Your task to perform on an android device: open a bookmark in the chrome app Image 0: 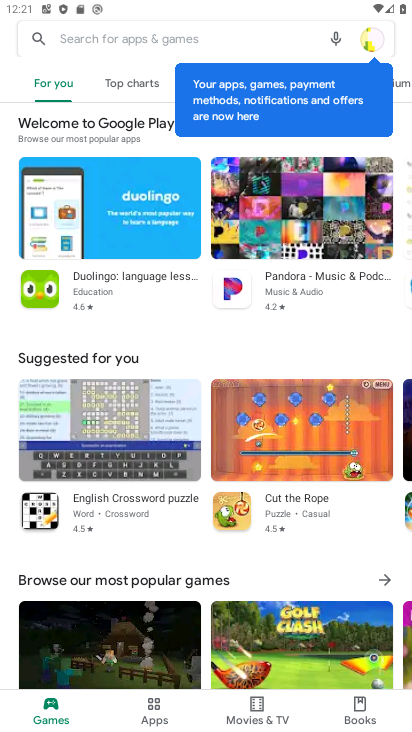
Step 0: press back button
Your task to perform on an android device: open a bookmark in the chrome app Image 1: 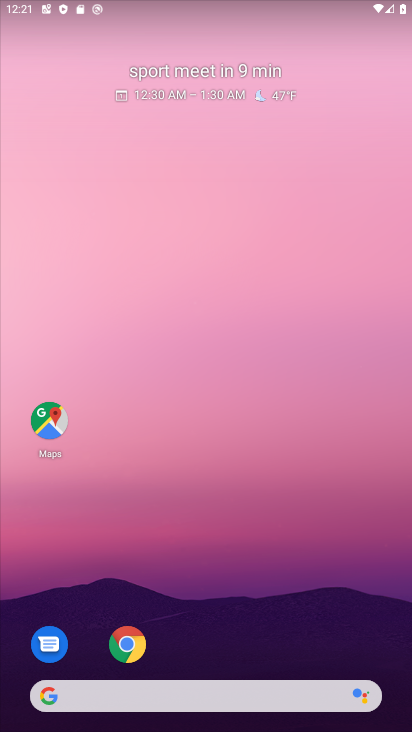
Step 1: click (133, 636)
Your task to perform on an android device: open a bookmark in the chrome app Image 2: 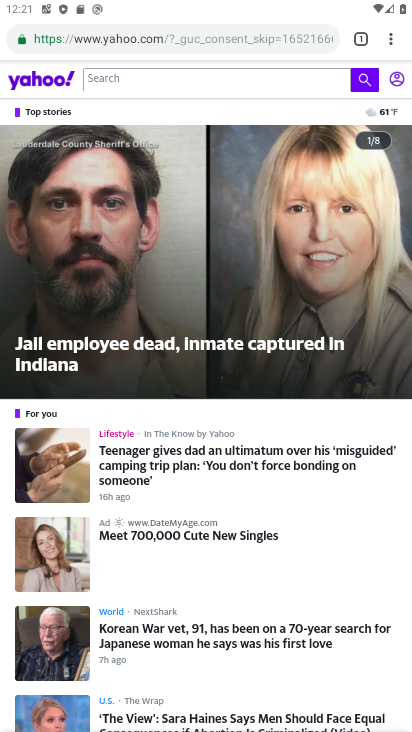
Step 2: task complete